Your task to perform on an android device: change the upload size in google photos Image 0: 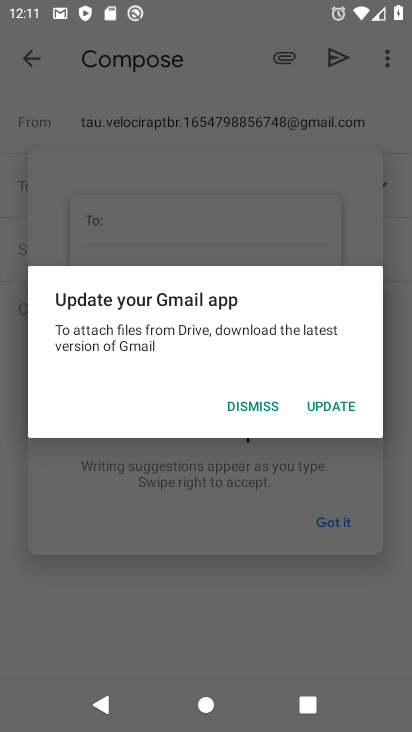
Step 0: press home button
Your task to perform on an android device: change the upload size in google photos Image 1: 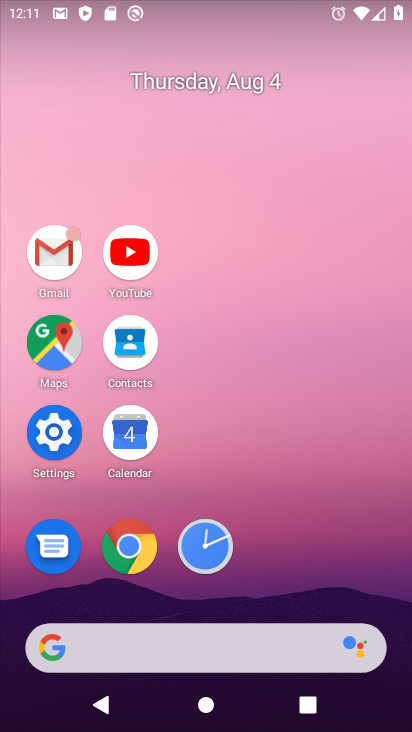
Step 1: drag from (309, 575) to (205, 79)
Your task to perform on an android device: change the upload size in google photos Image 2: 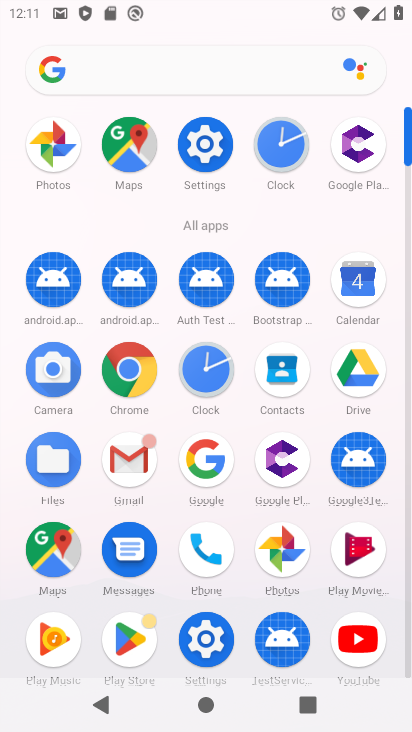
Step 2: click (56, 146)
Your task to perform on an android device: change the upload size in google photos Image 3: 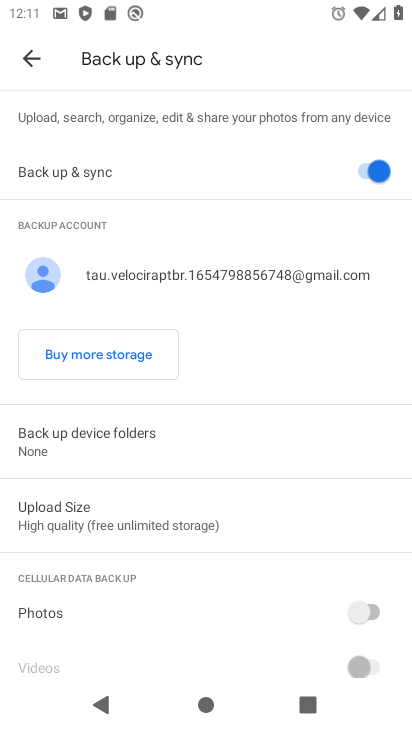
Step 3: click (80, 501)
Your task to perform on an android device: change the upload size in google photos Image 4: 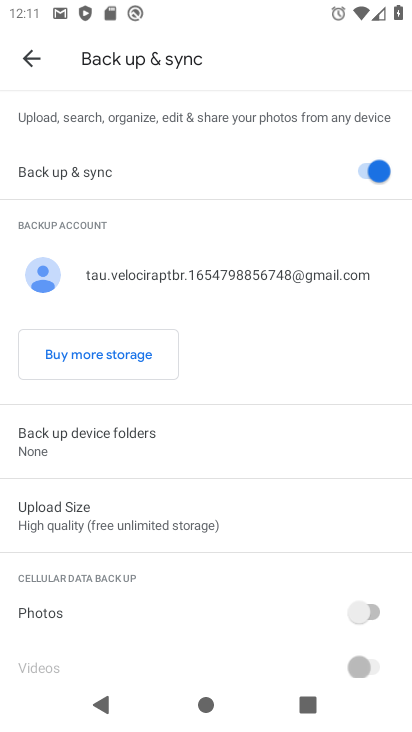
Step 4: click (80, 501)
Your task to perform on an android device: change the upload size in google photos Image 5: 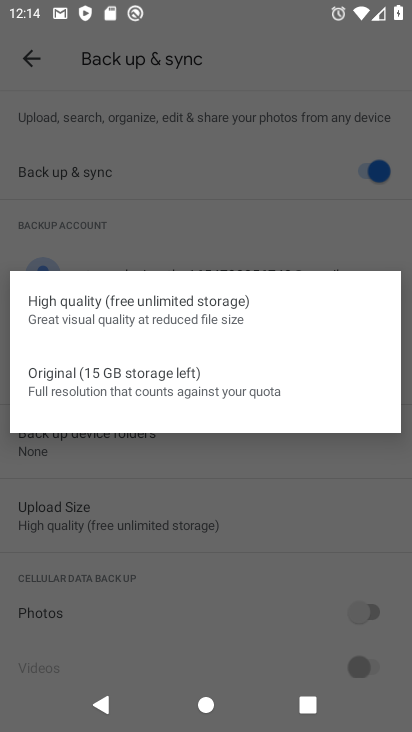
Step 5: task complete